Your task to perform on an android device: delete location history Image 0: 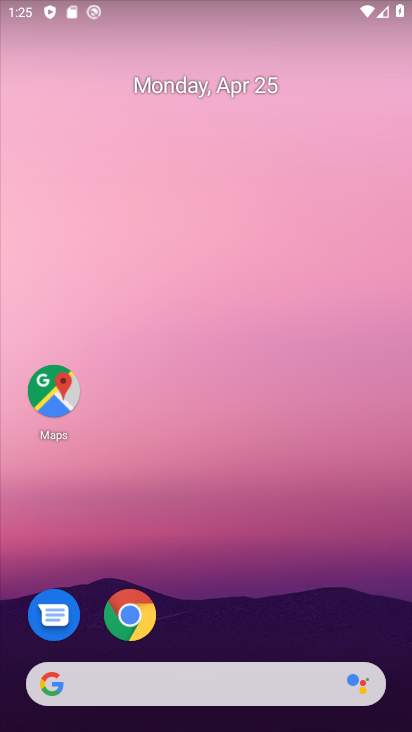
Step 0: click (31, 365)
Your task to perform on an android device: delete location history Image 1: 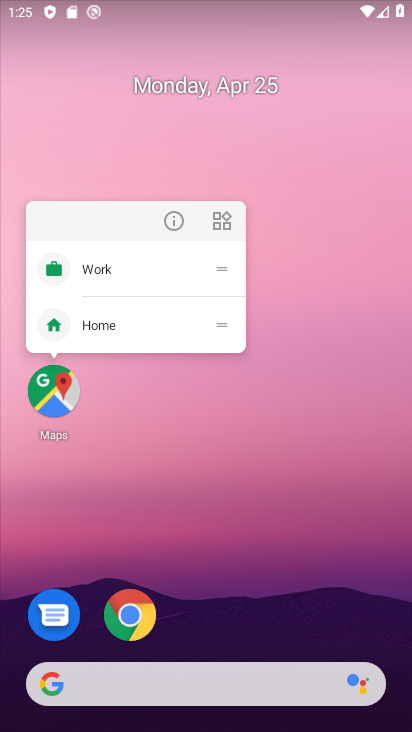
Step 1: click (58, 394)
Your task to perform on an android device: delete location history Image 2: 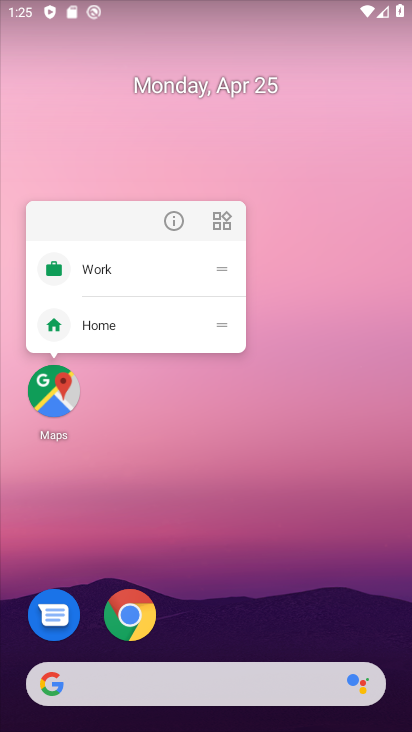
Step 2: click (58, 394)
Your task to perform on an android device: delete location history Image 3: 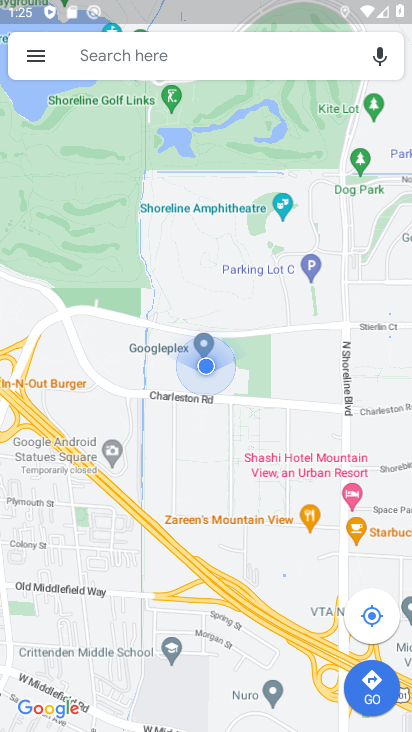
Step 3: click (42, 64)
Your task to perform on an android device: delete location history Image 4: 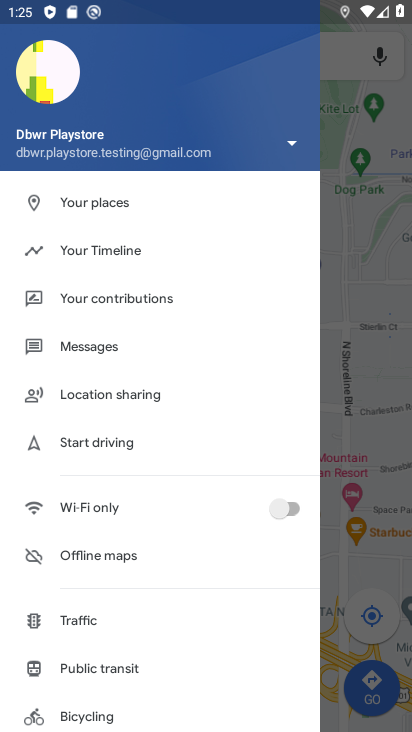
Step 4: click (145, 238)
Your task to perform on an android device: delete location history Image 5: 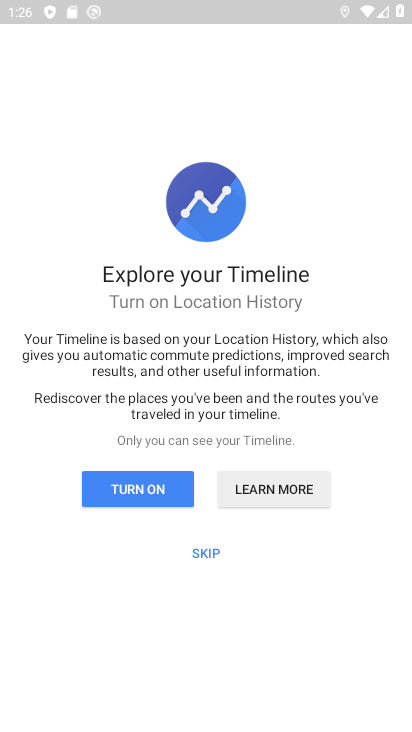
Step 5: click (208, 552)
Your task to perform on an android device: delete location history Image 6: 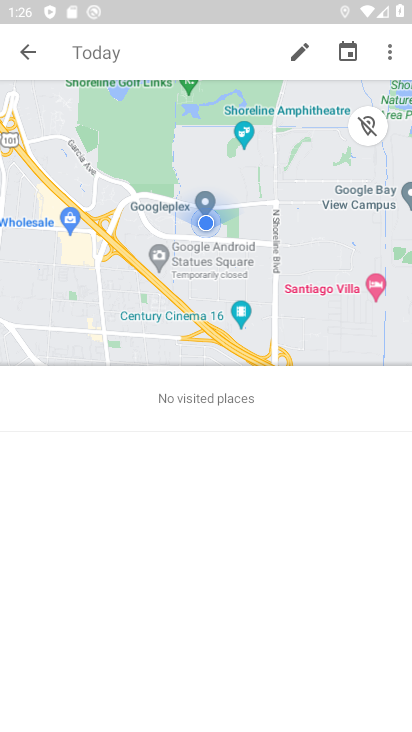
Step 6: click (393, 55)
Your task to perform on an android device: delete location history Image 7: 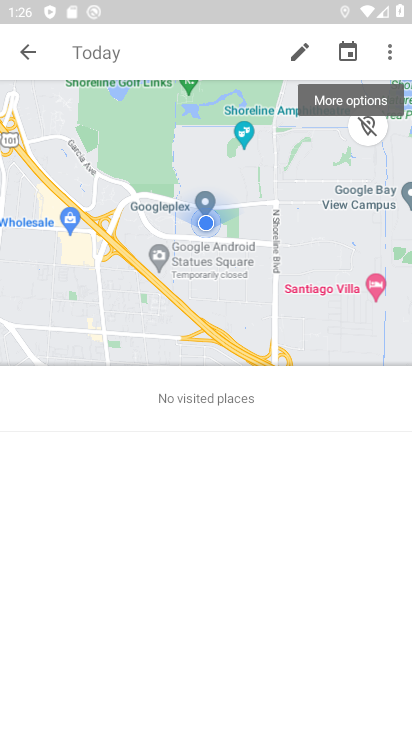
Step 7: click (393, 55)
Your task to perform on an android device: delete location history Image 8: 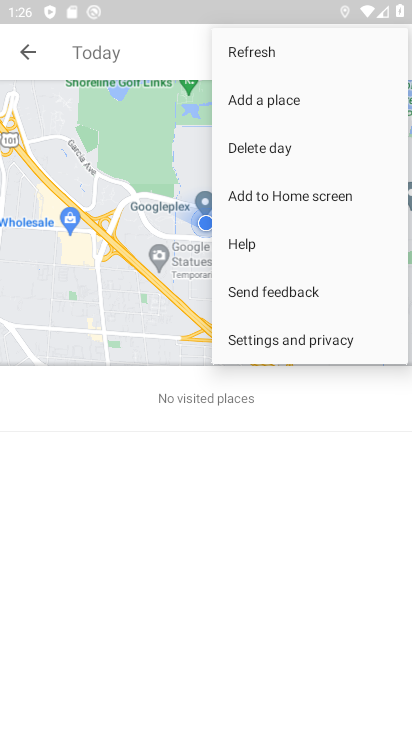
Step 8: click (330, 338)
Your task to perform on an android device: delete location history Image 9: 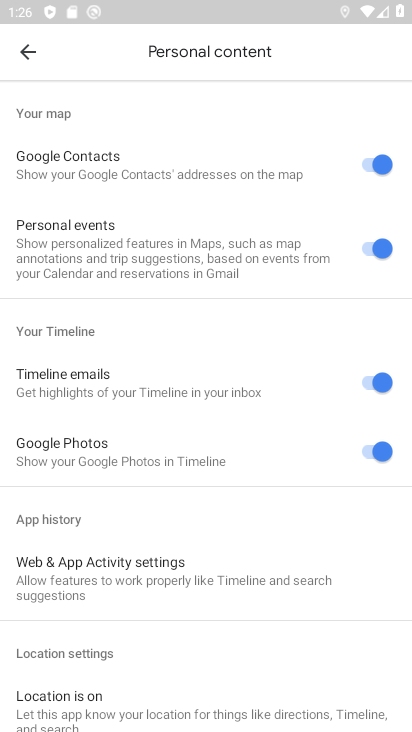
Step 9: drag from (248, 691) to (267, 127)
Your task to perform on an android device: delete location history Image 10: 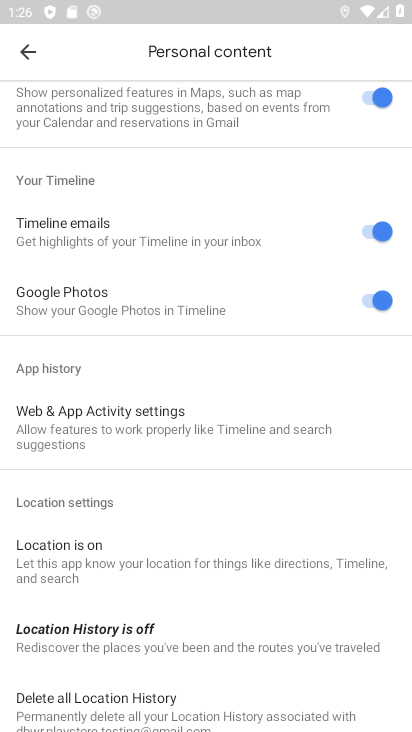
Step 10: click (200, 707)
Your task to perform on an android device: delete location history Image 11: 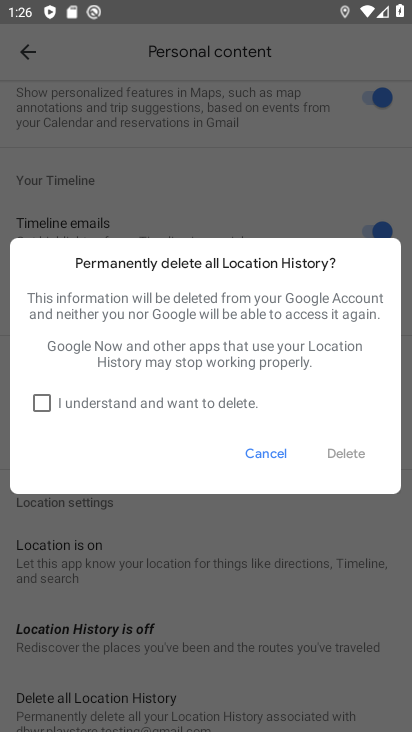
Step 11: click (213, 403)
Your task to perform on an android device: delete location history Image 12: 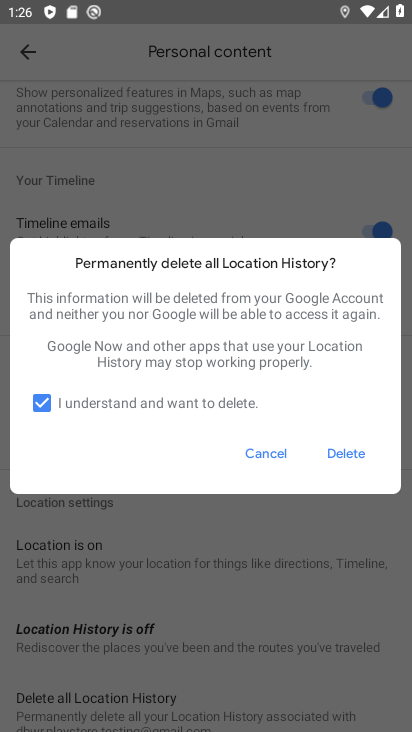
Step 12: click (360, 465)
Your task to perform on an android device: delete location history Image 13: 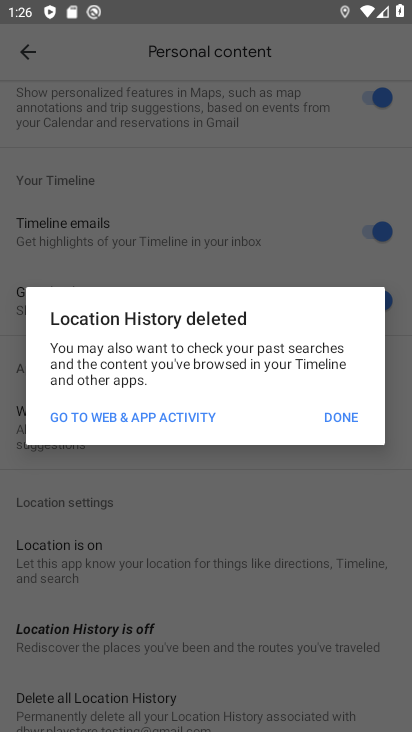
Step 13: click (344, 423)
Your task to perform on an android device: delete location history Image 14: 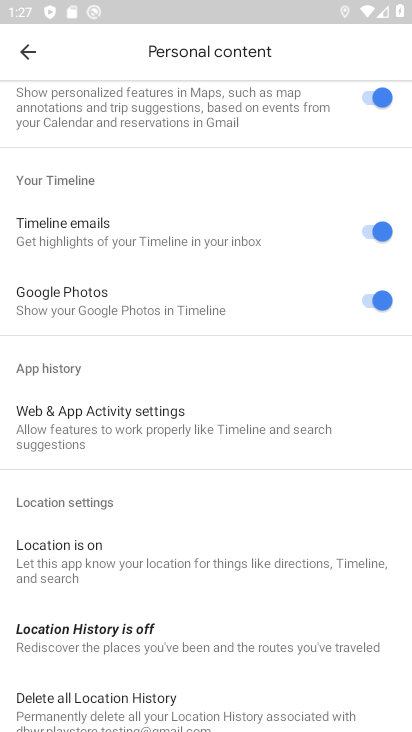
Step 14: task complete